Your task to perform on an android device: When is my next meeting? Image 0: 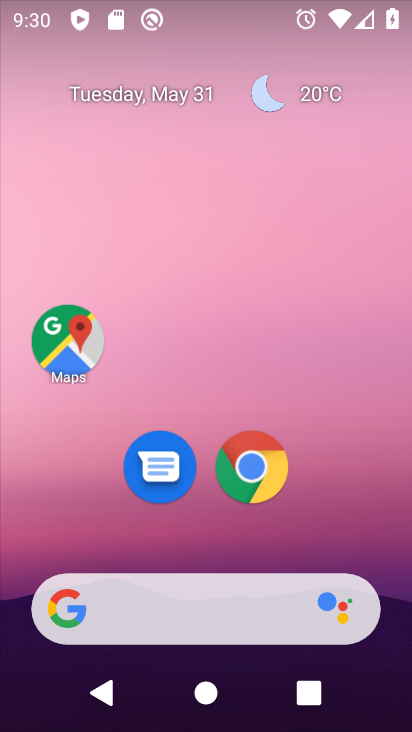
Step 0: drag from (208, 128) to (214, 75)
Your task to perform on an android device: When is my next meeting? Image 1: 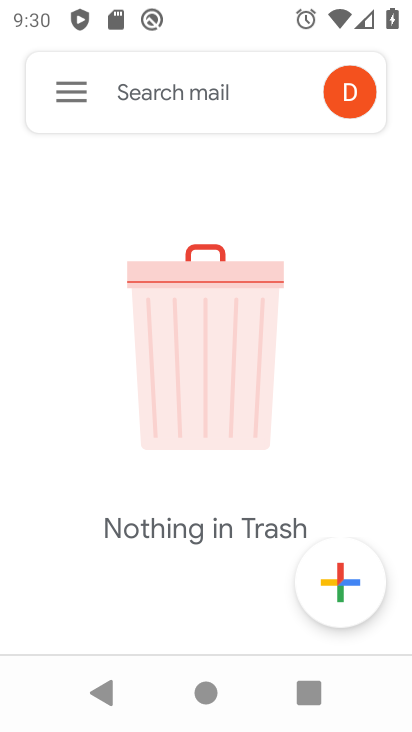
Step 1: click (66, 92)
Your task to perform on an android device: When is my next meeting? Image 2: 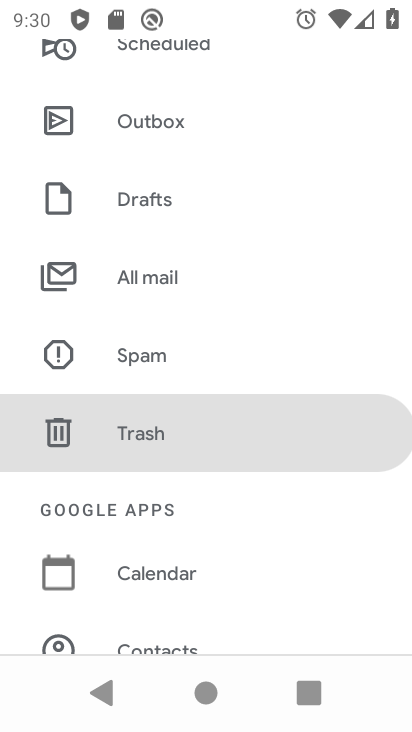
Step 2: drag from (230, 164) to (356, 728)
Your task to perform on an android device: When is my next meeting? Image 3: 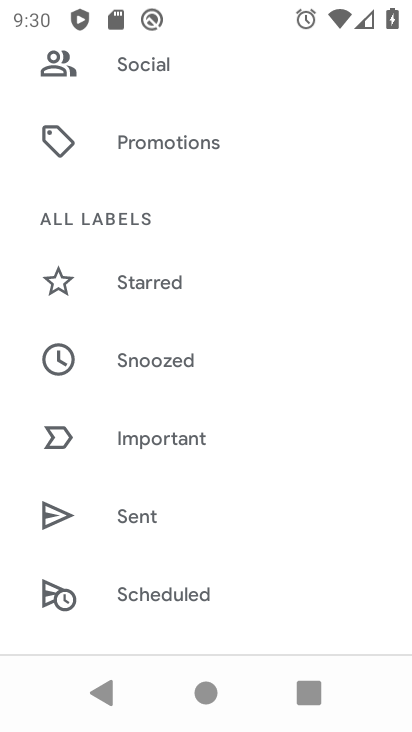
Step 3: press back button
Your task to perform on an android device: When is my next meeting? Image 4: 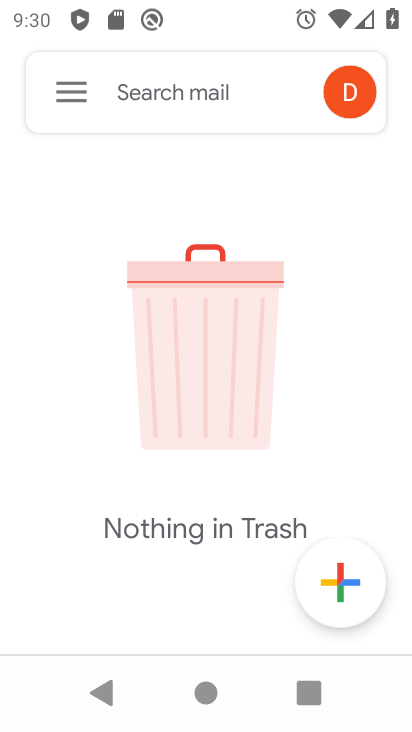
Step 4: press home button
Your task to perform on an android device: When is my next meeting? Image 5: 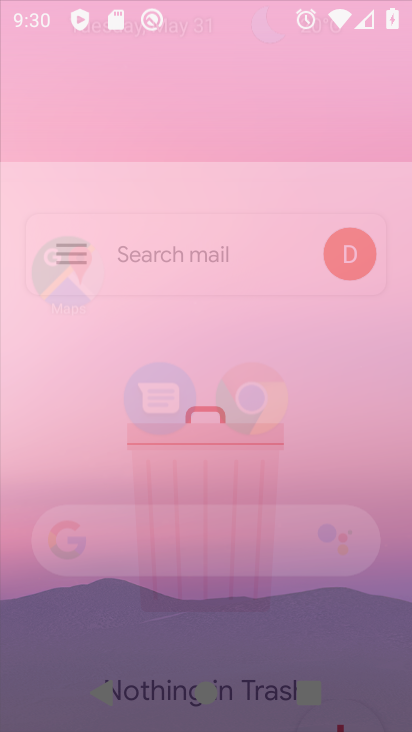
Step 5: drag from (281, 461) to (365, 4)
Your task to perform on an android device: When is my next meeting? Image 6: 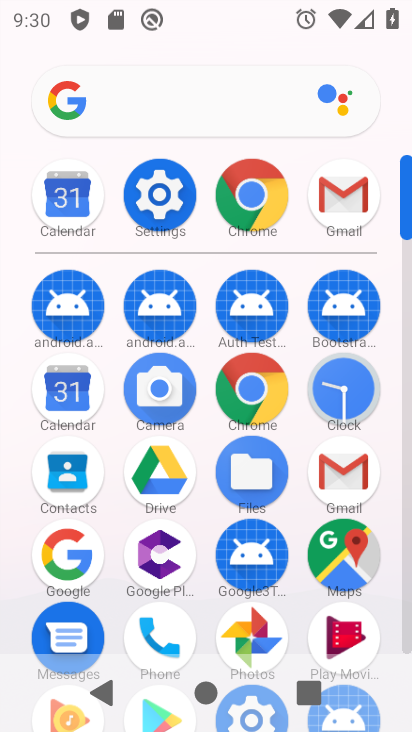
Step 6: click (74, 387)
Your task to perform on an android device: When is my next meeting? Image 7: 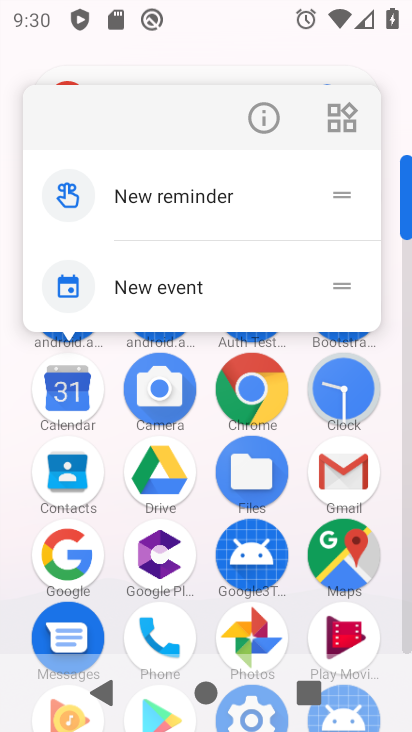
Step 7: click (281, 107)
Your task to perform on an android device: When is my next meeting? Image 8: 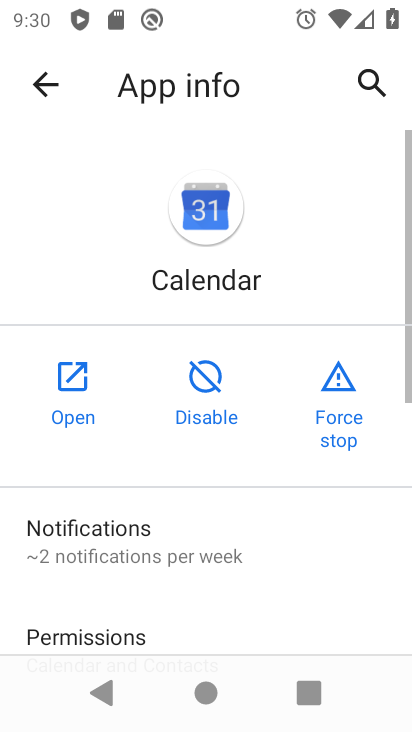
Step 8: click (58, 385)
Your task to perform on an android device: When is my next meeting? Image 9: 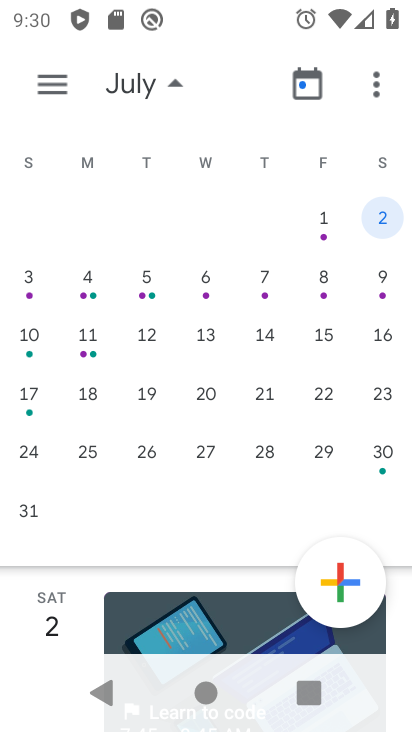
Step 9: drag from (49, 318) to (402, 263)
Your task to perform on an android device: When is my next meeting? Image 10: 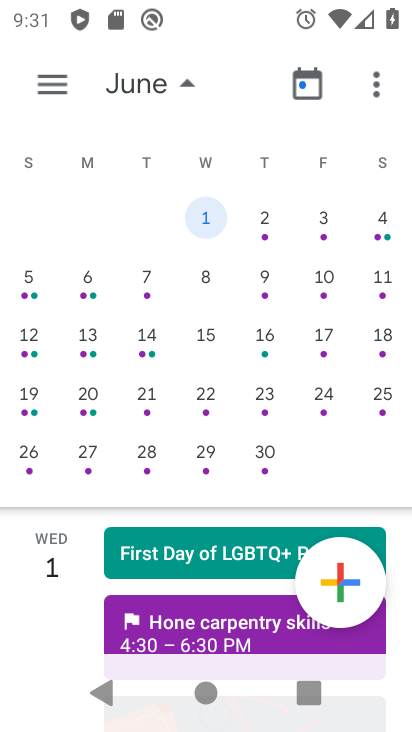
Step 10: click (212, 222)
Your task to perform on an android device: When is my next meeting? Image 11: 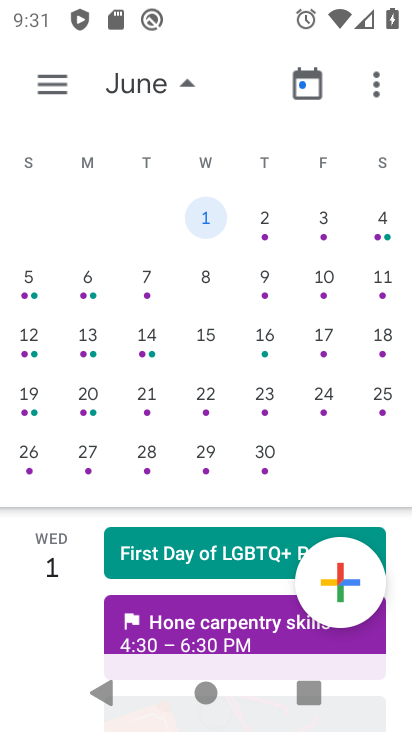
Step 11: task complete